Your task to perform on an android device: turn off picture-in-picture Image 0: 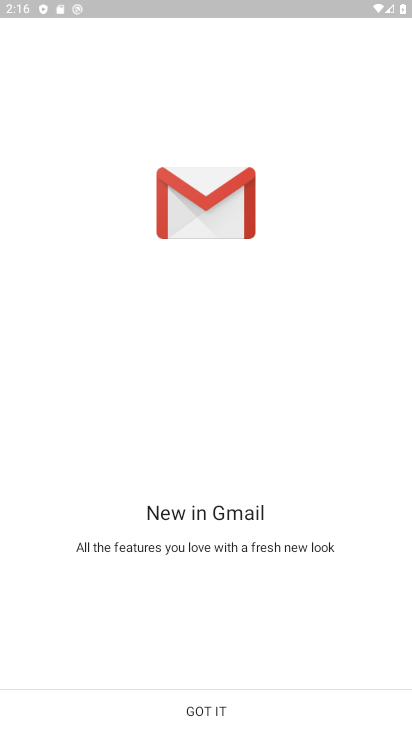
Step 0: press home button
Your task to perform on an android device: turn off picture-in-picture Image 1: 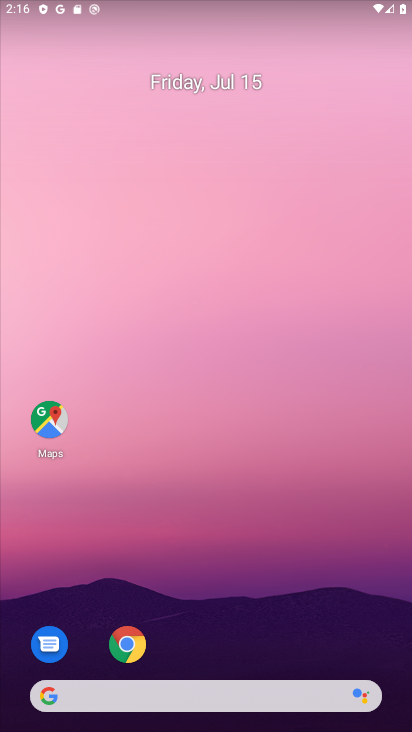
Step 1: drag from (203, 672) to (302, 198)
Your task to perform on an android device: turn off picture-in-picture Image 2: 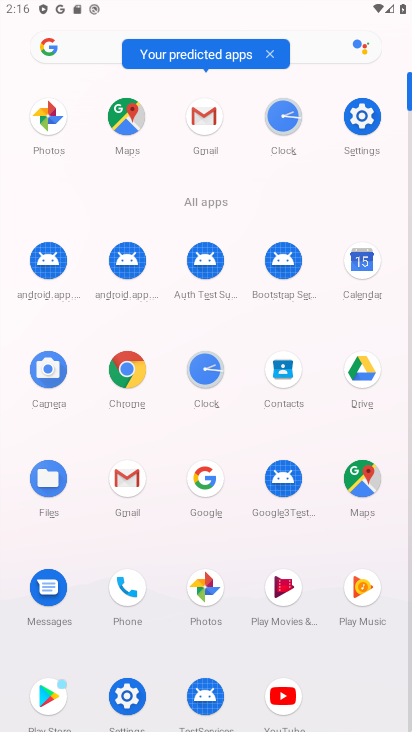
Step 2: click (119, 697)
Your task to perform on an android device: turn off picture-in-picture Image 3: 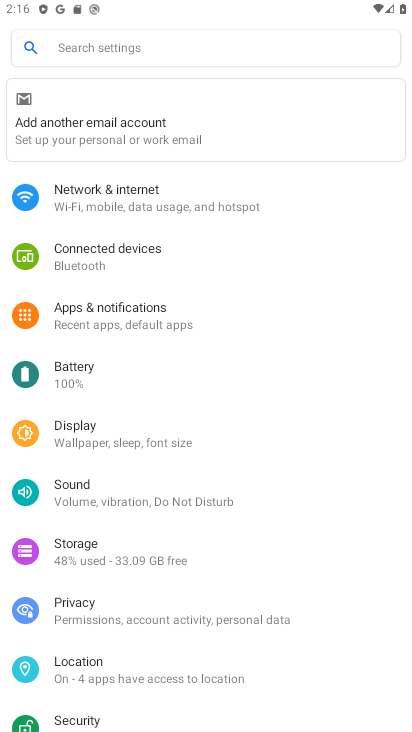
Step 3: click (139, 322)
Your task to perform on an android device: turn off picture-in-picture Image 4: 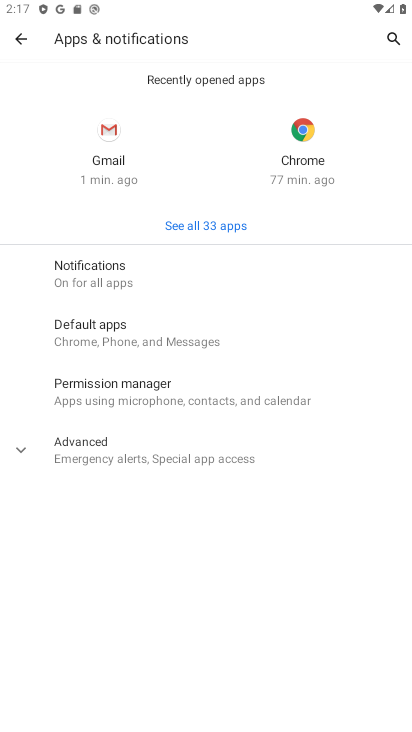
Step 4: click (178, 461)
Your task to perform on an android device: turn off picture-in-picture Image 5: 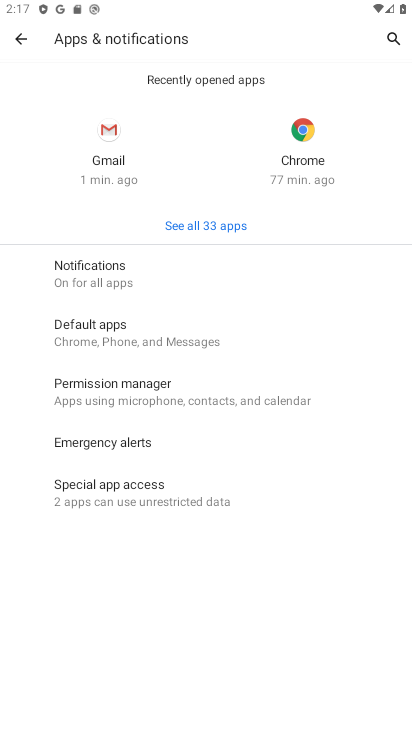
Step 5: click (157, 493)
Your task to perform on an android device: turn off picture-in-picture Image 6: 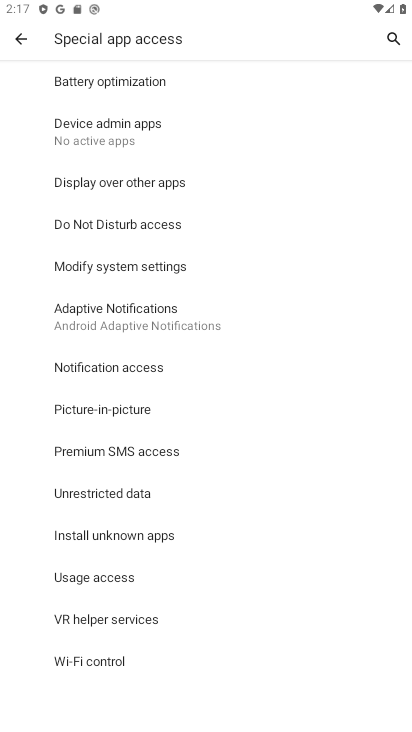
Step 6: click (143, 413)
Your task to perform on an android device: turn off picture-in-picture Image 7: 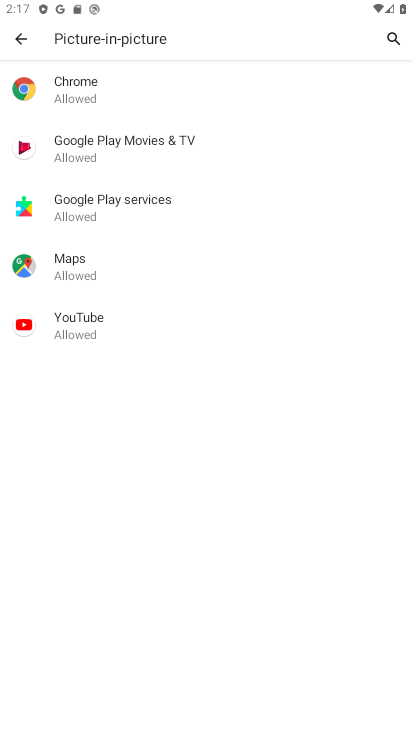
Step 7: click (159, 107)
Your task to perform on an android device: turn off picture-in-picture Image 8: 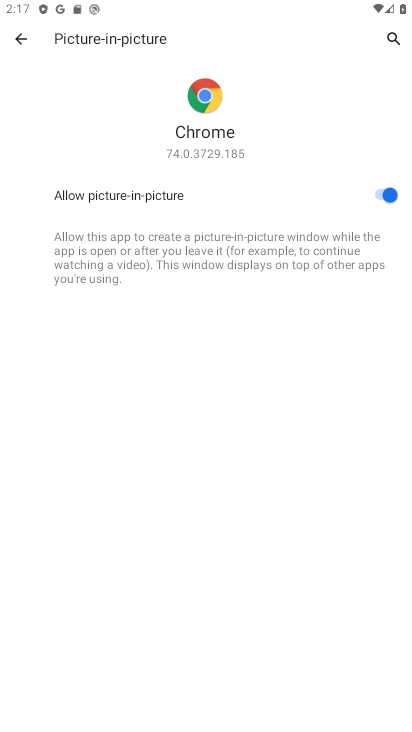
Step 8: click (356, 192)
Your task to perform on an android device: turn off picture-in-picture Image 9: 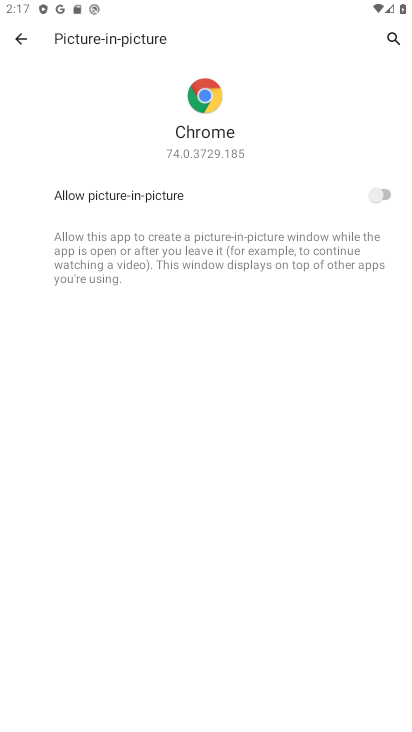
Step 9: press back button
Your task to perform on an android device: turn off picture-in-picture Image 10: 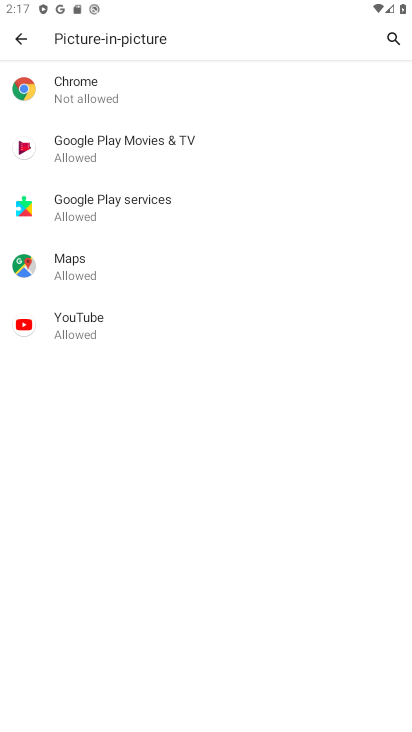
Step 10: click (221, 159)
Your task to perform on an android device: turn off picture-in-picture Image 11: 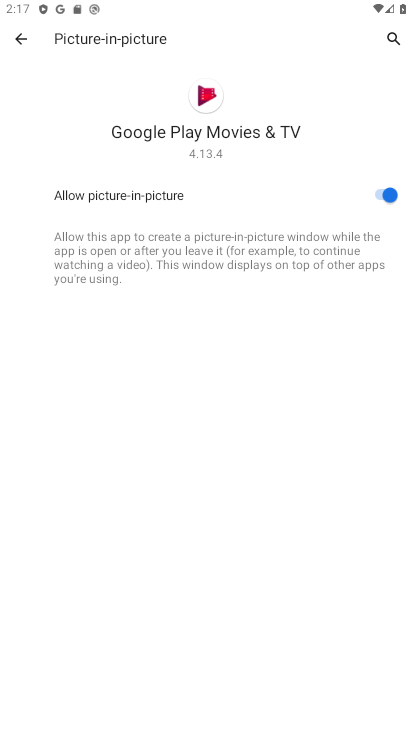
Step 11: click (386, 199)
Your task to perform on an android device: turn off picture-in-picture Image 12: 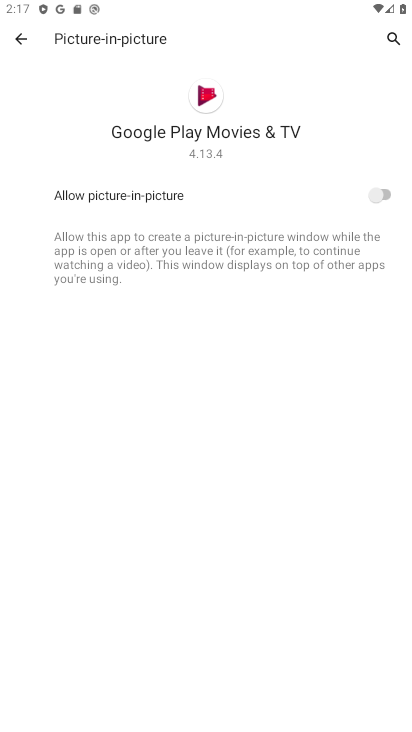
Step 12: press back button
Your task to perform on an android device: turn off picture-in-picture Image 13: 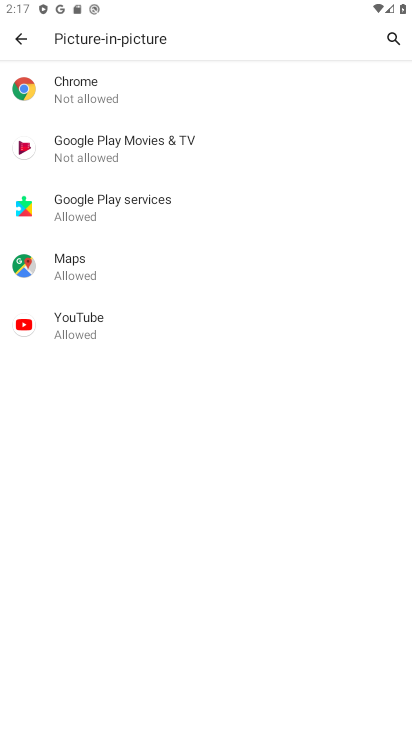
Step 13: click (244, 204)
Your task to perform on an android device: turn off picture-in-picture Image 14: 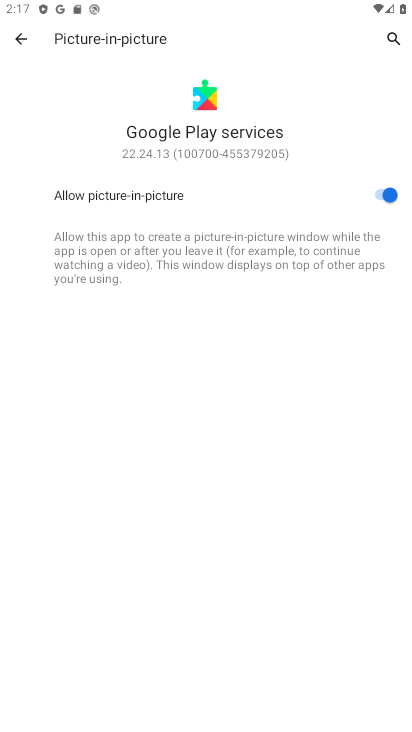
Step 14: click (389, 189)
Your task to perform on an android device: turn off picture-in-picture Image 15: 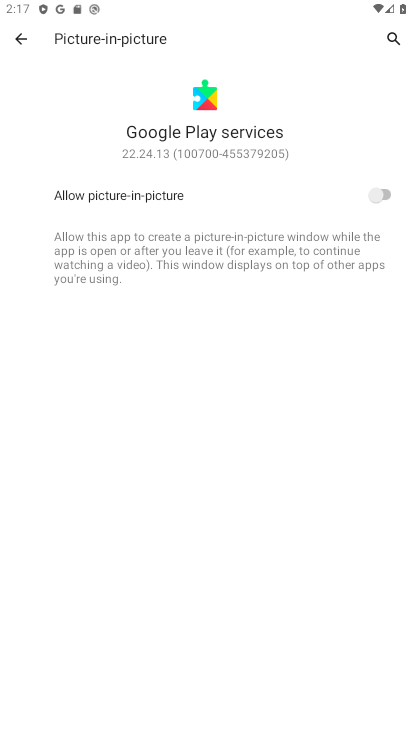
Step 15: press back button
Your task to perform on an android device: turn off picture-in-picture Image 16: 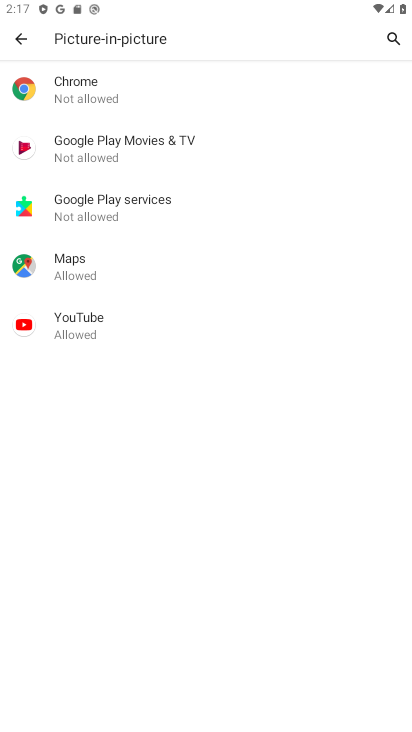
Step 16: click (128, 256)
Your task to perform on an android device: turn off picture-in-picture Image 17: 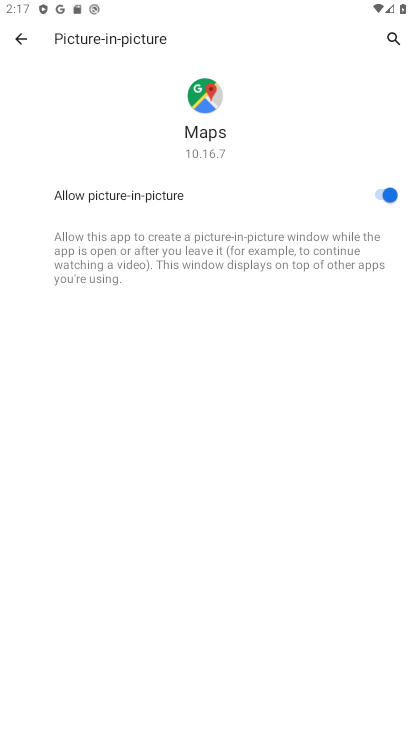
Step 17: click (377, 193)
Your task to perform on an android device: turn off picture-in-picture Image 18: 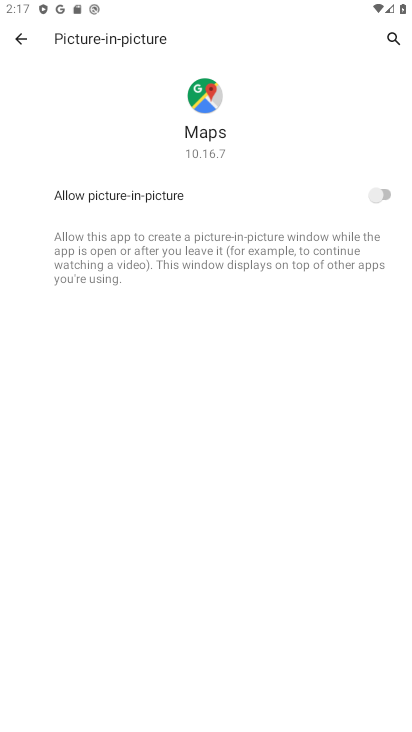
Step 18: press back button
Your task to perform on an android device: turn off picture-in-picture Image 19: 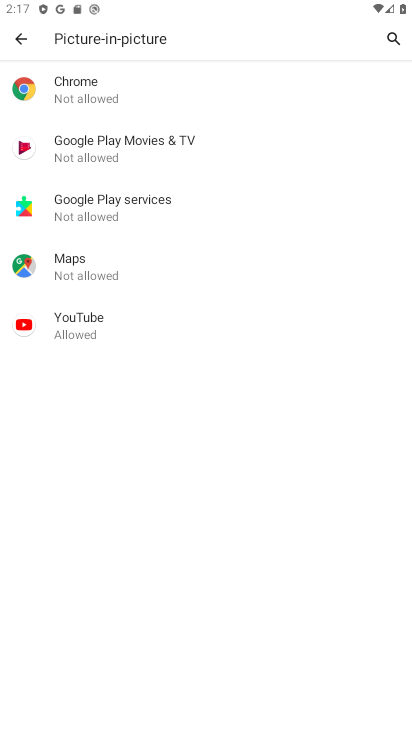
Step 19: click (138, 329)
Your task to perform on an android device: turn off picture-in-picture Image 20: 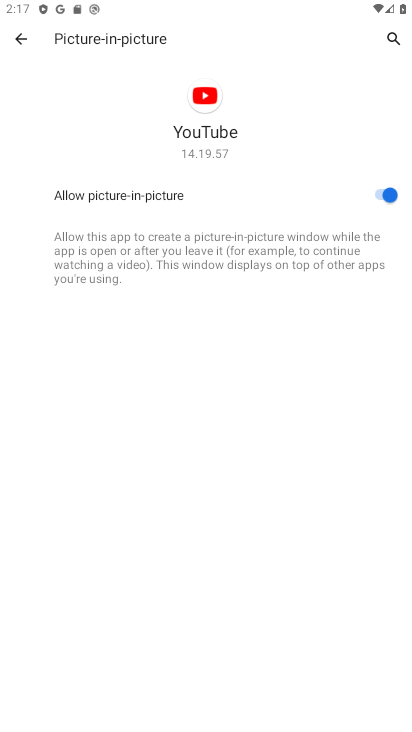
Step 20: click (383, 199)
Your task to perform on an android device: turn off picture-in-picture Image 21: 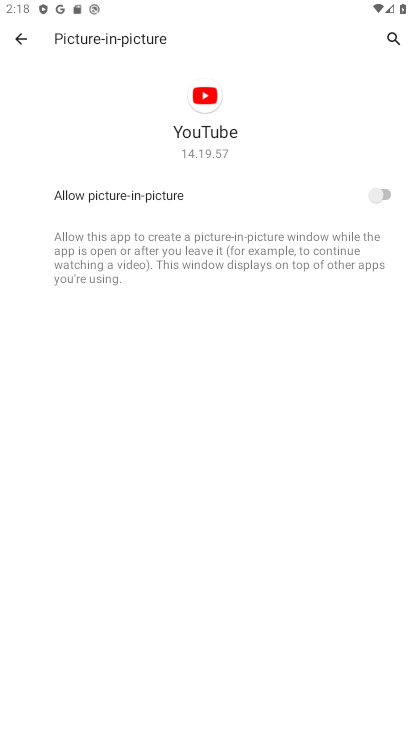
Step 21: task complete